Your task to perform on an android device: Open the stopwatch Image 0: 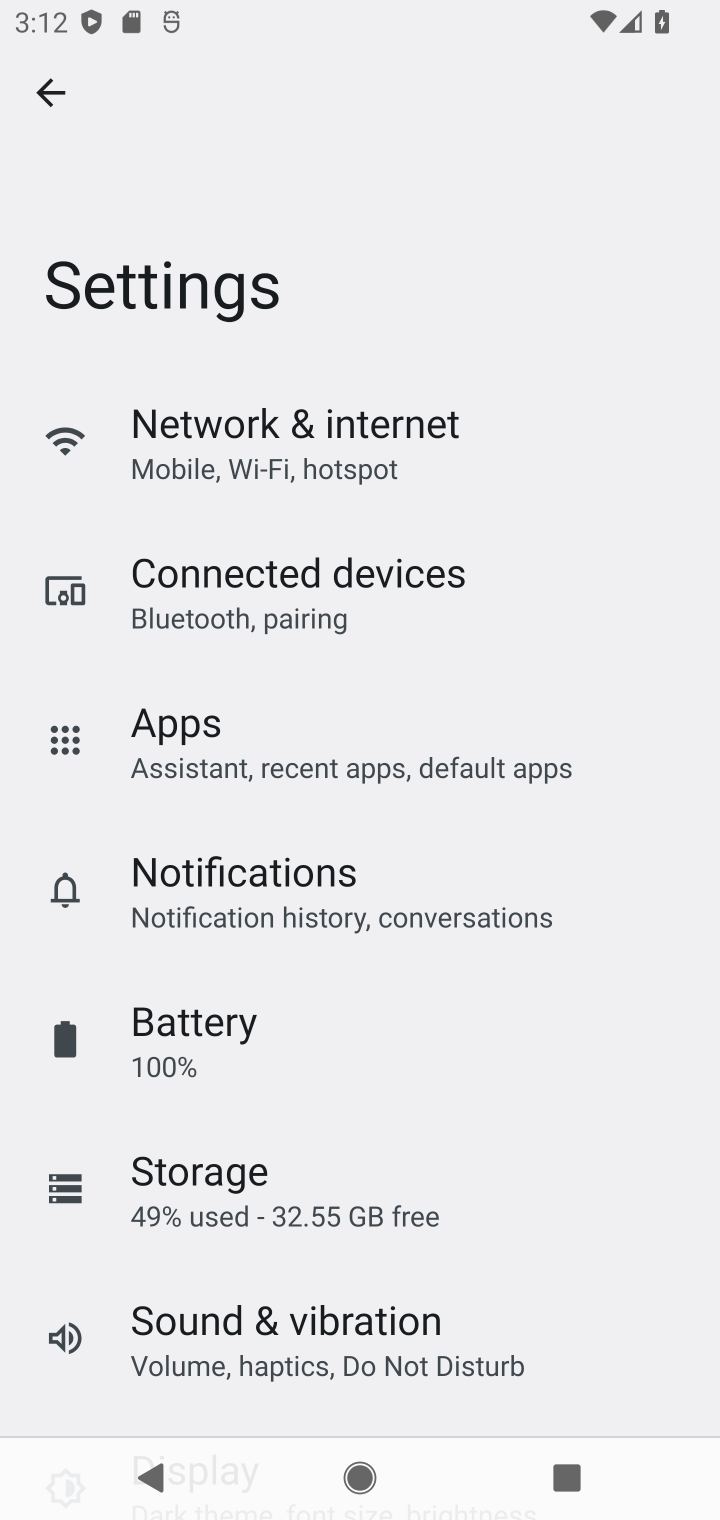
Step 0: press home button
Your task to perform on an android device: Open the stopwatch Image 1: 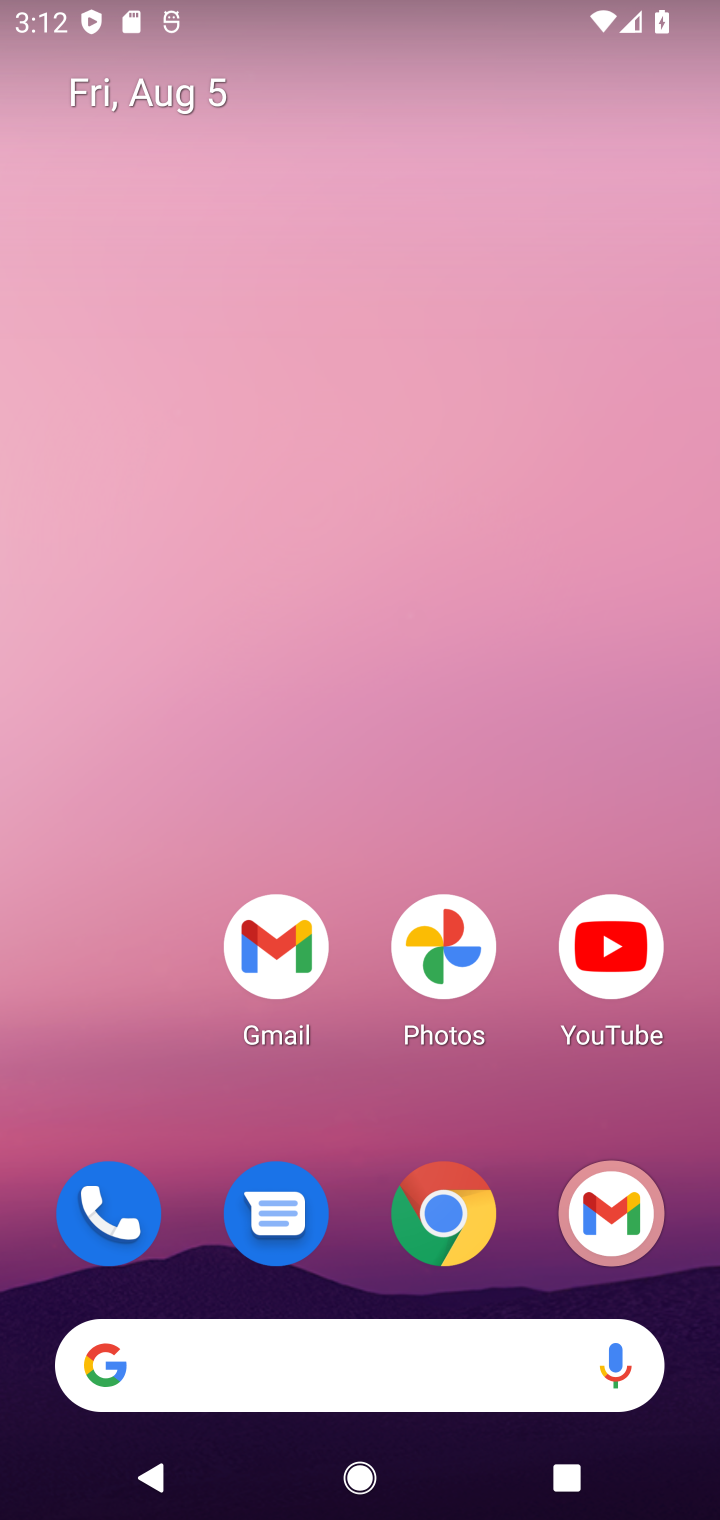
Step 1: drag from (189, 892) to (252, 66)
Your task to perform on an android device: Open the stopwatch Image 2: 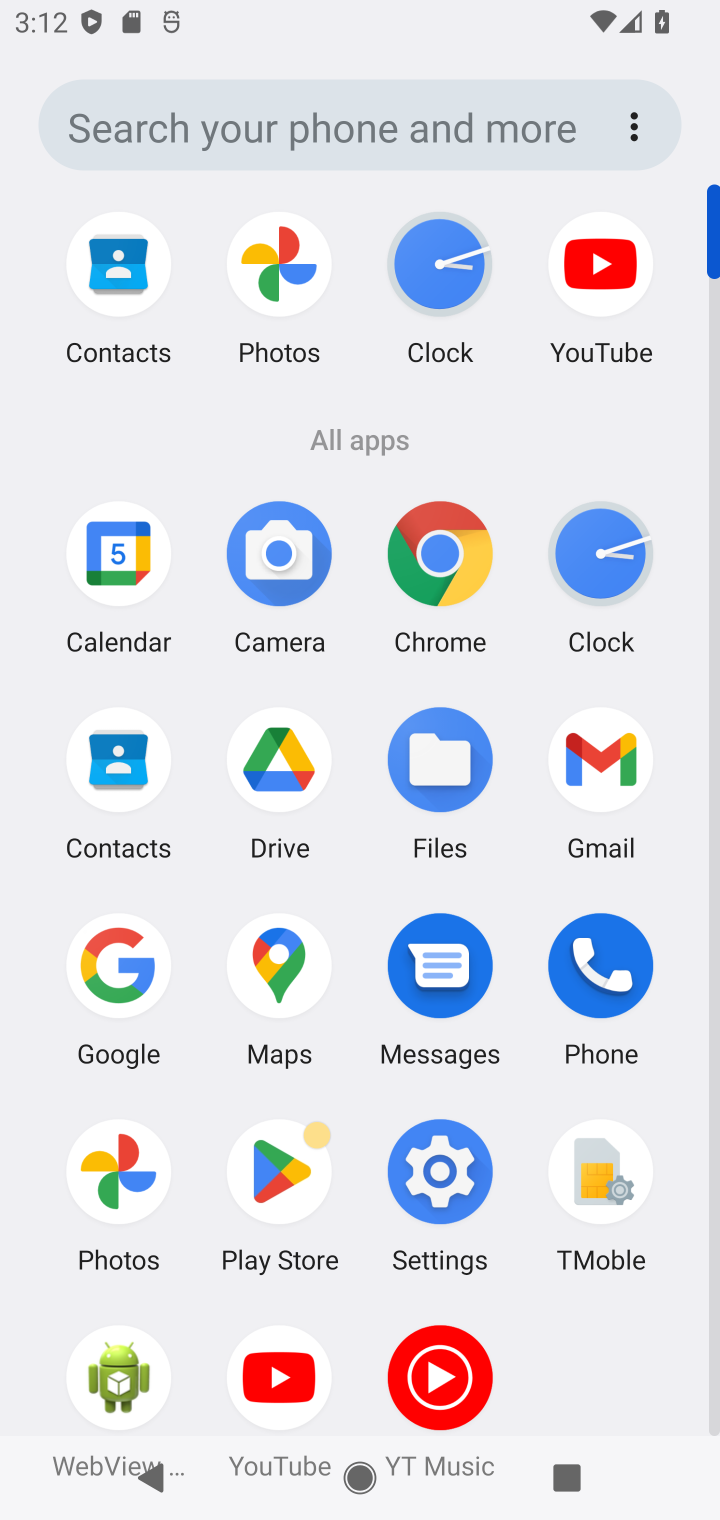
Step 2: click (607, 559)
Your task to perform on an android device: Open the stopwatch Image 3: 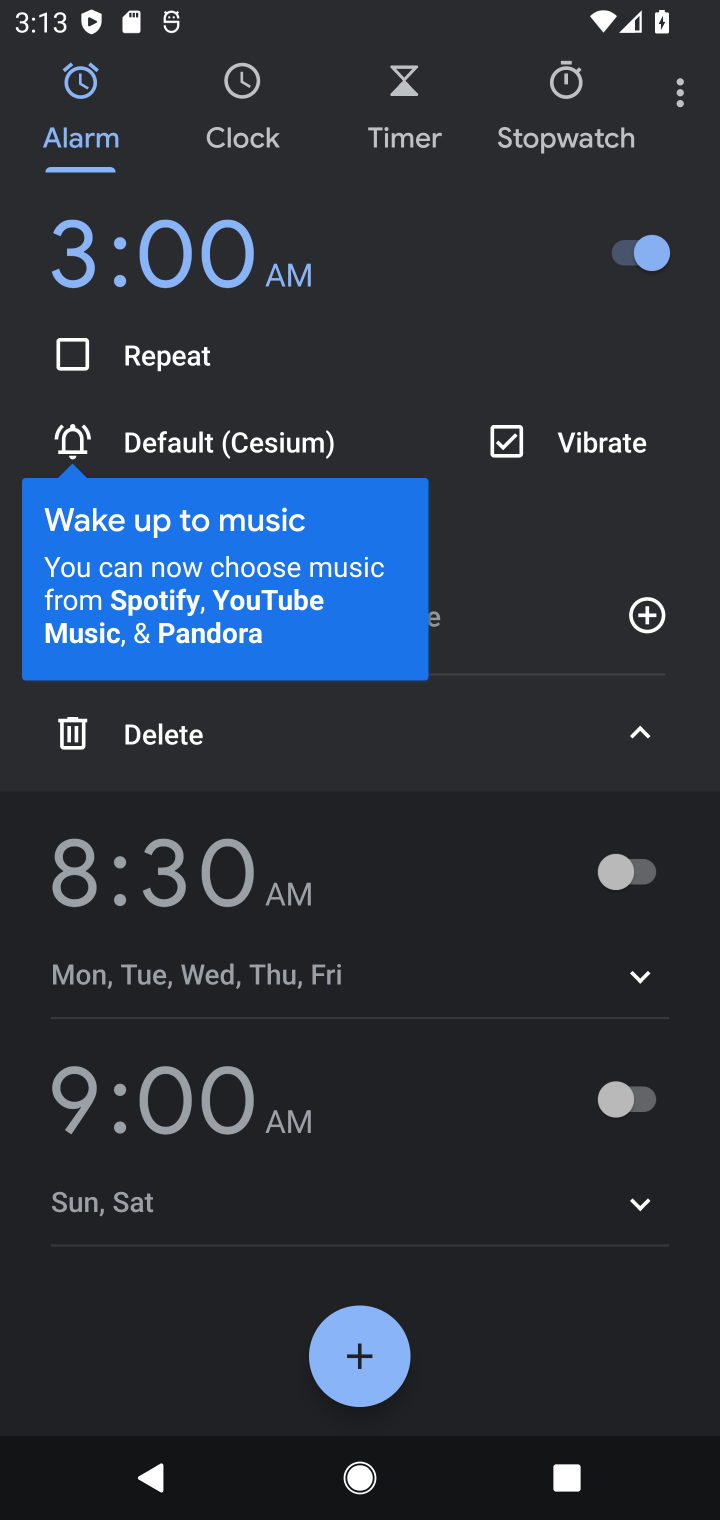
Step 3: click (547, 83)
Your task to perform on an android device: Open the stopwatch Image 4: 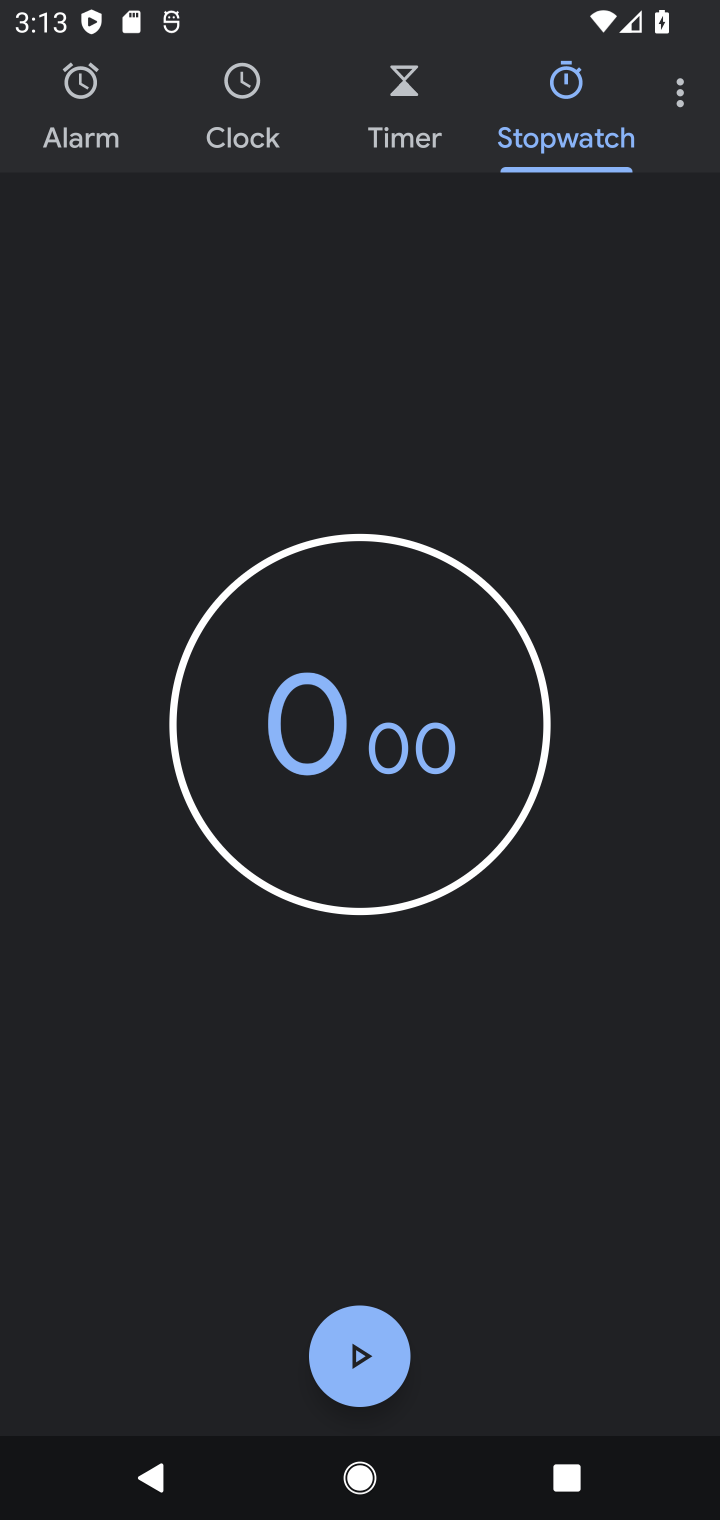
Step 4: task complete